Your task to perform on an android device: check out phone information Image 0: 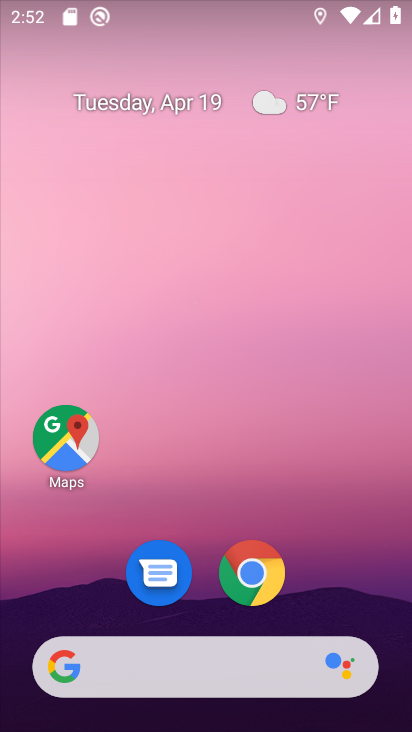
Step 0: drag from (179, 608) to (257, 192)
Your task to perform on an android device: check out phone information Image 1: 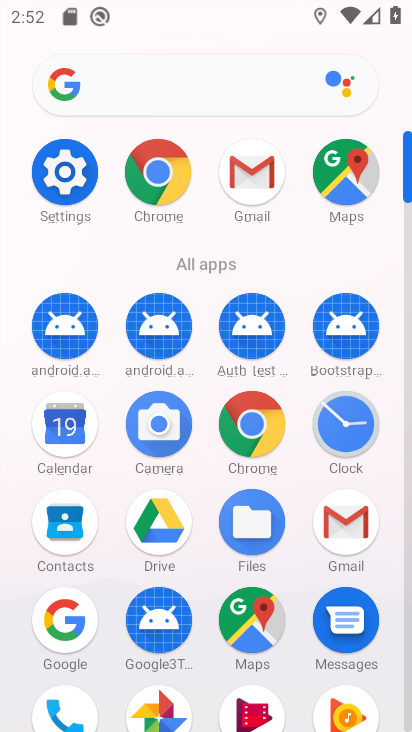
Step 1: drag from (169, 595) to (301, 296)
Your task to perform on an android device: check out phone information Image 2: 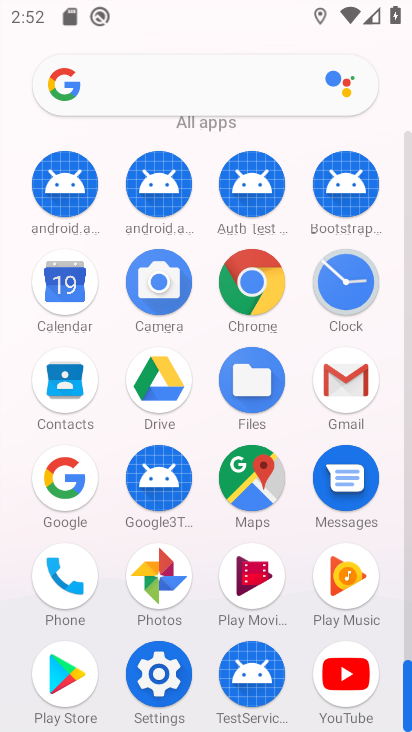
Step 2: click (154, 665)
Your task to perform on an android device: check out phone information Image 3: 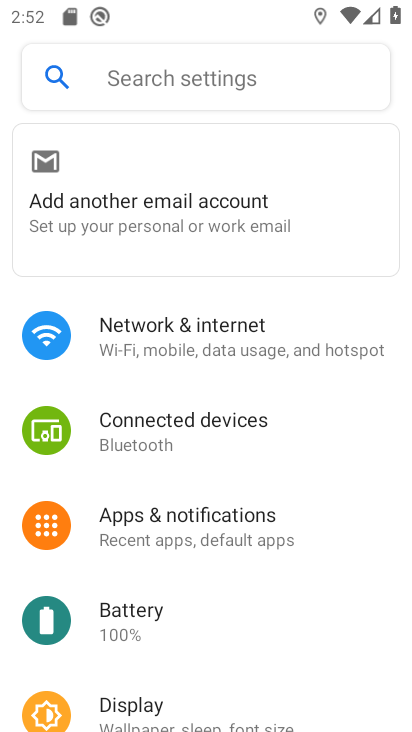
Step 3: drag from (210, 647) to (364, 69)
Your task to perform on an android device: check out phone information Image 4: 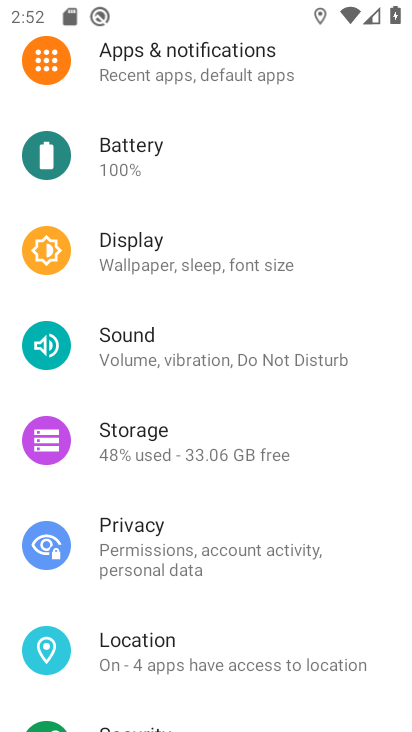
Step 4: drag from (262, 586) to (407, 150)
Your task to perform on an android device: check out phone information Image 5: 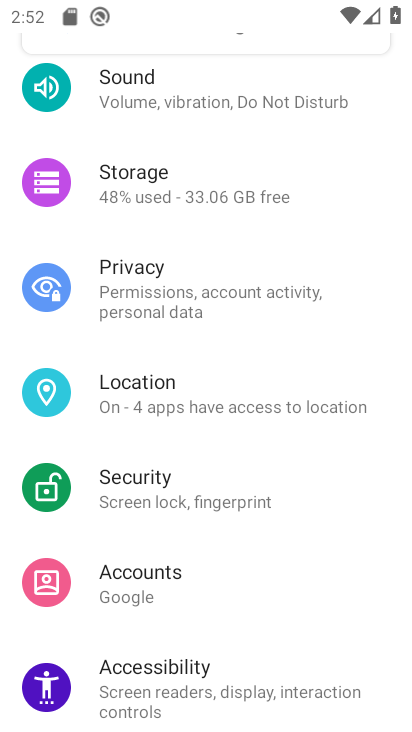
Step 5: drag from (270, 413) to (394, 76)
Your task to perform on an android device: check out phone information Image 6: 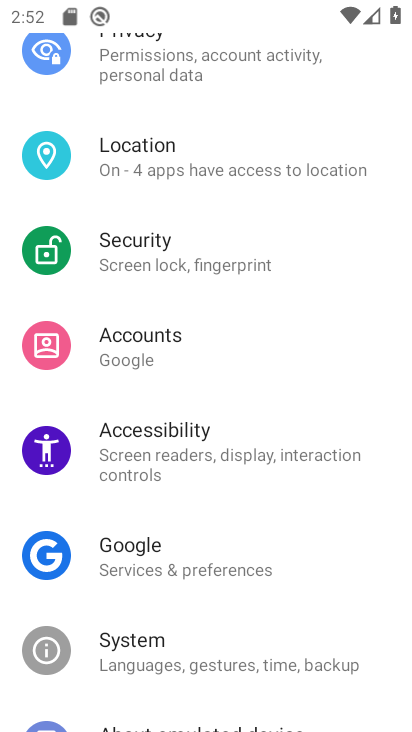
Step 6: drag from (225, 598) to (370, 160)
Your task to perform on an android device: check out phone information Image 7: 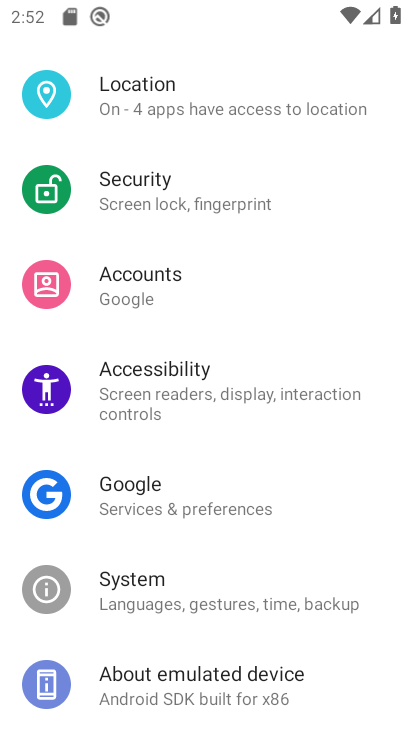
Step 7: drag from (233, 625) to (307, 317)
Your task to perform on an android device: check out phone information Image 8: 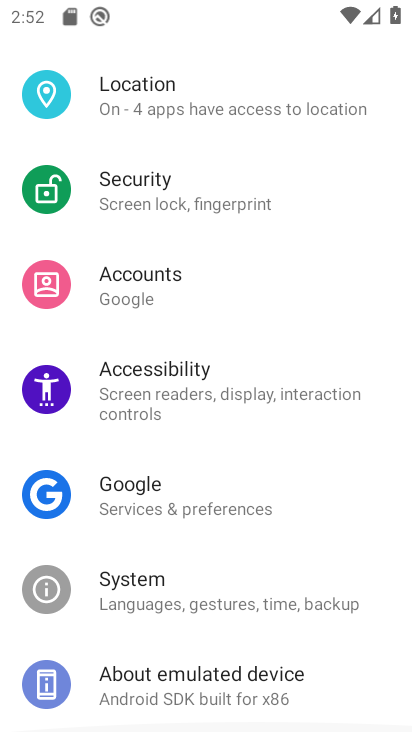
Step 8: click (305, 678)
Your task to perform on an android device: check out phone information Image 9: 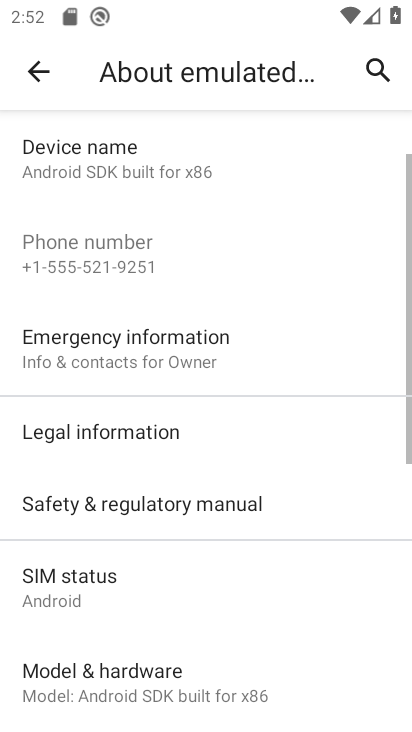
Step 9: task complete